Your task to perform on an android device: Do I have any events this weekend? Image 0: 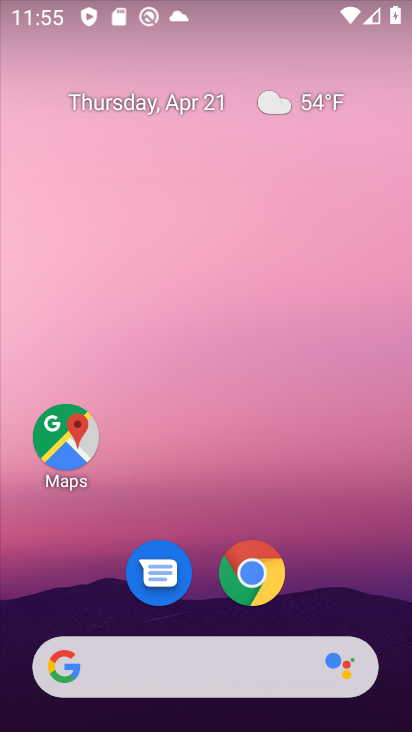
Step 0: drag from (396, 588) to (394, 152)
Your task to perform on an android device: Do I have any events this weekend? Image 1: 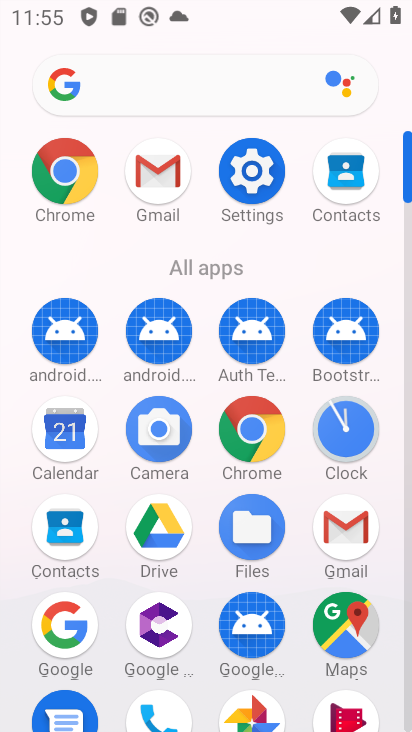
Step 1: click (59, 428)
Your task to perform on an android device: Do I have any events this weekend? Image 2: 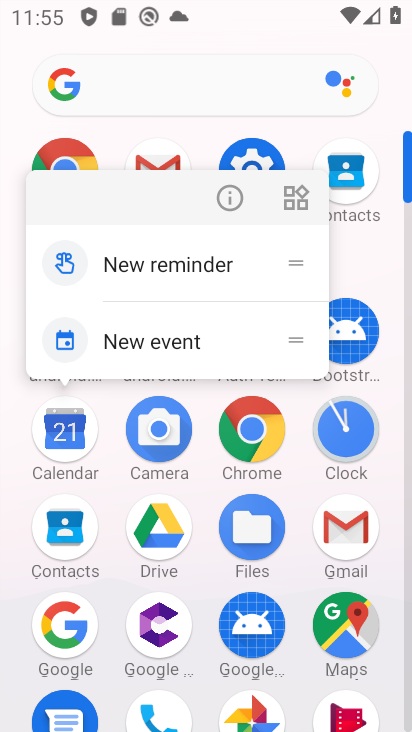
Step 2: click (59, 426)
Your task to perform on an android device: Do I have any events this weekend? Image 3: 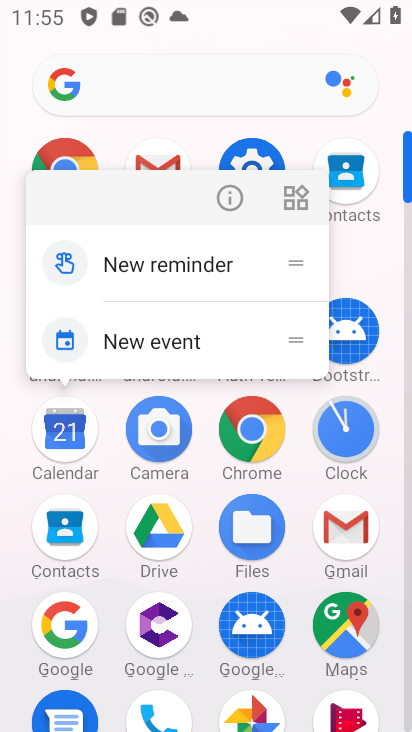
Step 3: click (63, 429)
Your task to perform on an android device: Do I have any events this weekend? Image 4: 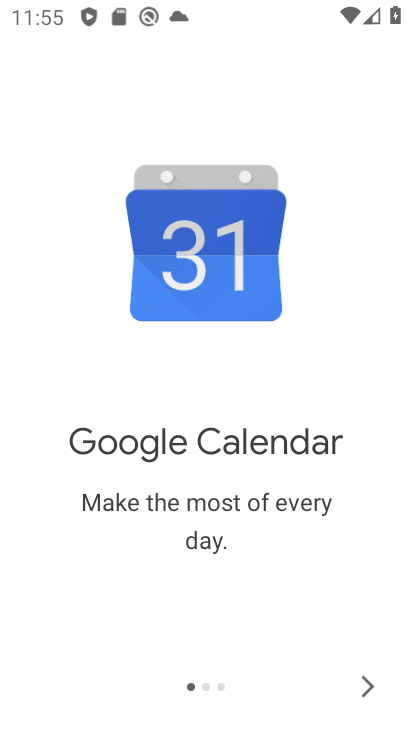
Step 4: click (361, 692)
Your task to perform on an android device: Do I have any events this weekend? Image 5: 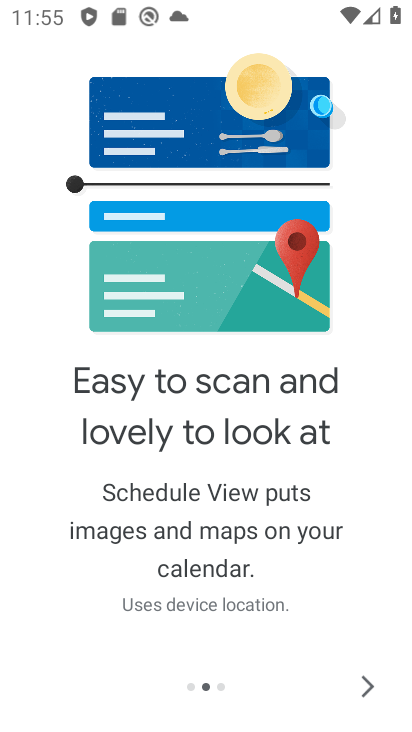
Step 5: click (361, 692)
Your task to perform on an android device: Do I have any events this weekend? Image 6: 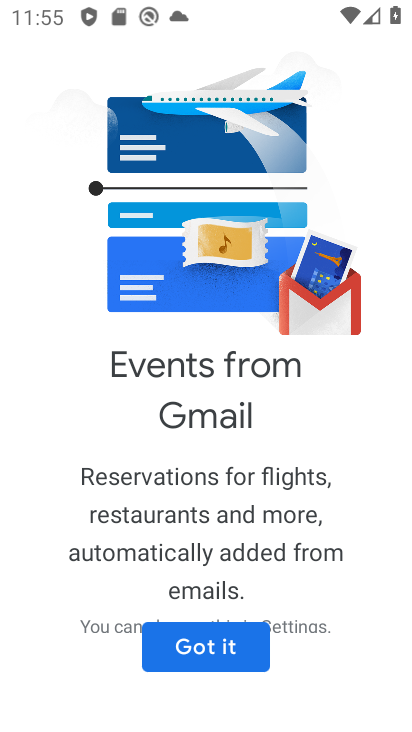
Step 6: click (231, 639)
Your task to perform on an android device: Do I have any events this weekend? Image 7: 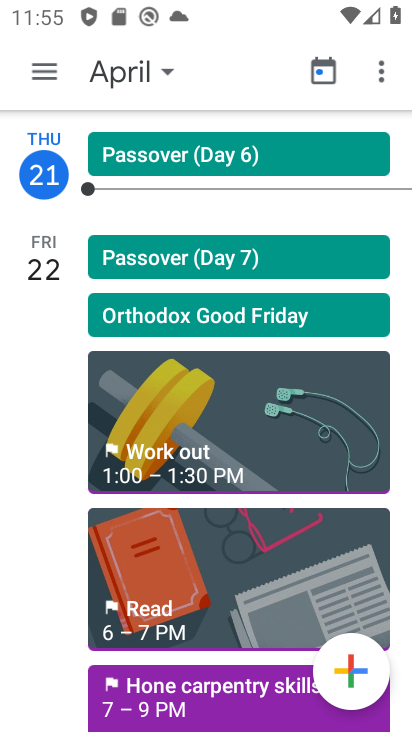
Step 7: task complete